Your task to perform on an android device: Open calendar and show me the second week of next month Image 0: 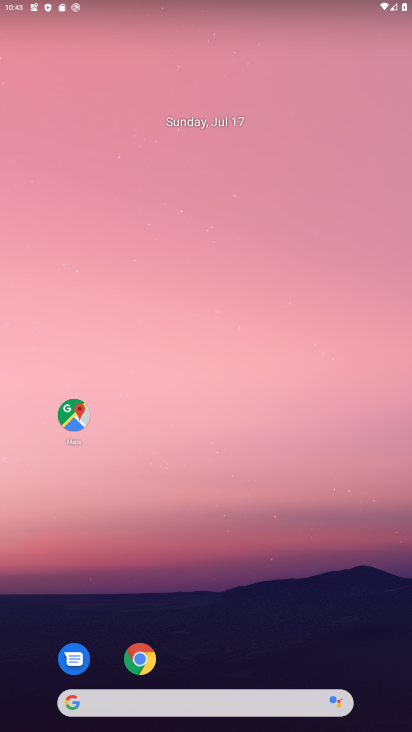
Step 0: drag from (287, 607) to (167, 87)
Your task to perform on an android device: Open calendar and show me the second week of next month Image 1: 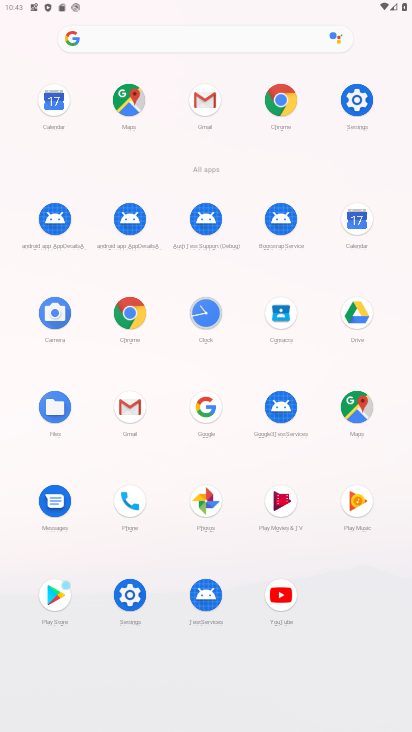
Step 1: click (357, 225)
Your task to perform on an android device: Open calendar and show me the second week of next month Image 2: 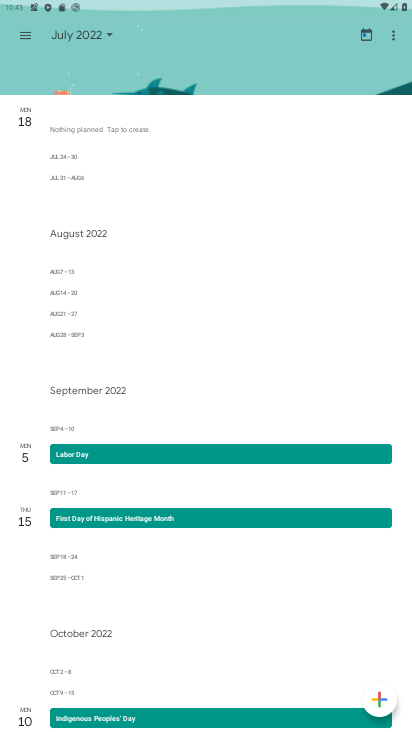
Step 2: click (80, 38)
Your task to perform on an android device: Open calendar and show me the second week of next month Image 3: 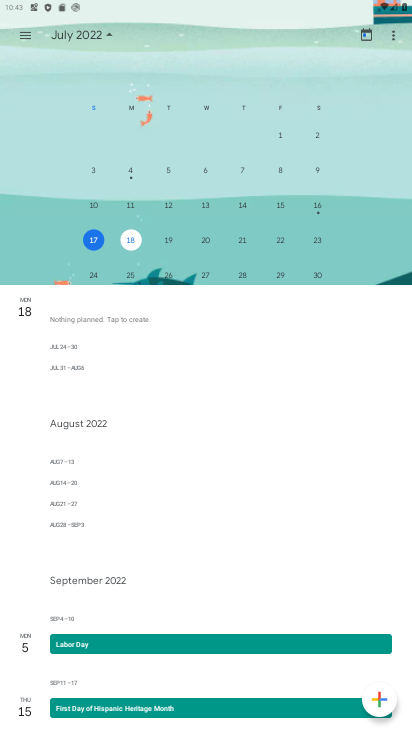
Step 3: drag from (321, 192) to (16, 154)
Your task to perform on an android device: Open calendar and show me the second week of next month Image 4: 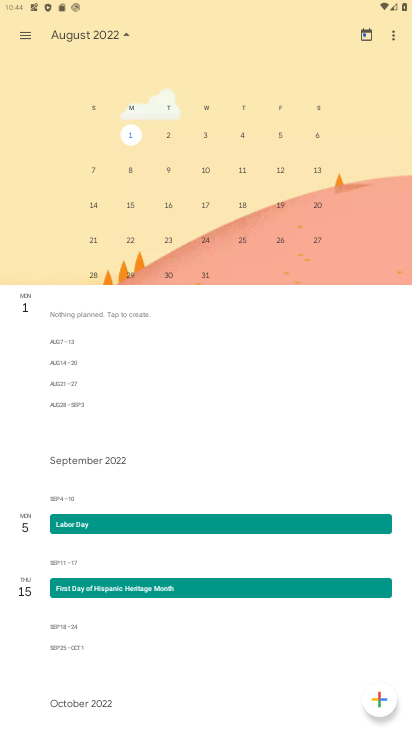
Step 4: click (194, 169)
Your task to perform on an android device: Open calendar and show me the second week of next month Image 5: 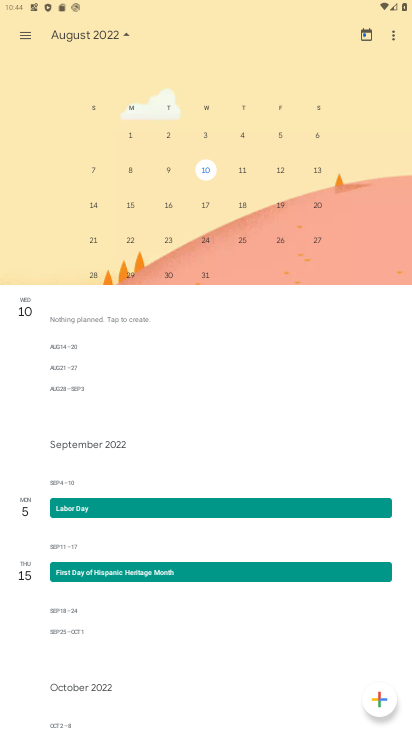
Step 5: click (25, 36)
Your task to perform on an android device: Open calendar and show me the second week of next month Image 6: 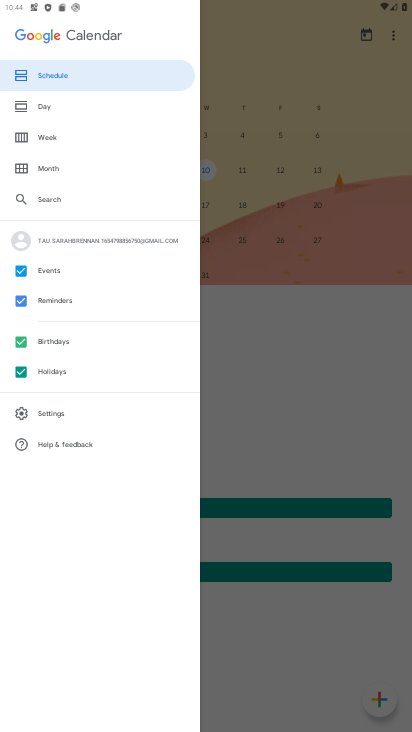
Step 6: click (32, 148)
Your task to perform on an android device: Open calendar and show me the second week of next month Image 7: 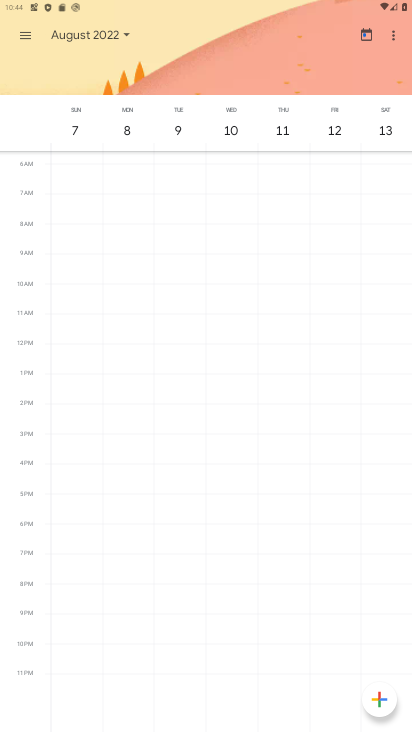
Step 7: task complete